Your task to perform on an android device: turn off notifications settings in the gmail app Image 0: 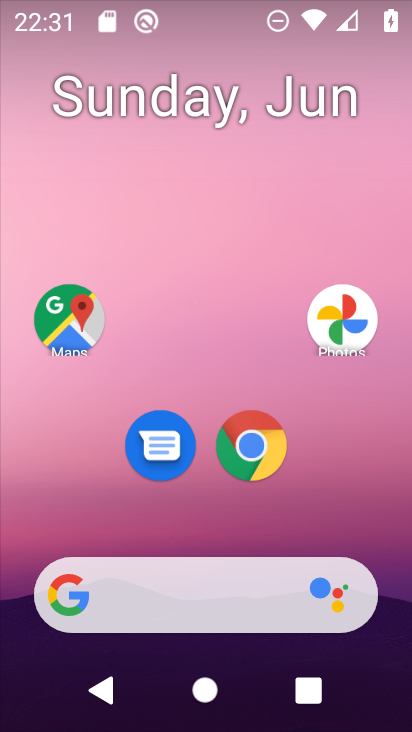
Step 0: press home button
Your task to perform on an android device: turn off notifications settings in the gmail app Image 1: 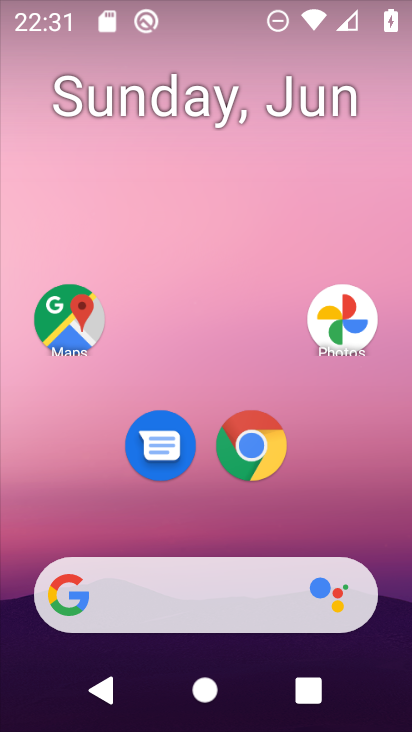
Step 1: drag from (326, 280) to (326, 43)
Your task to perform on an android device: turn off notifications settings in the gmail app Image 2: 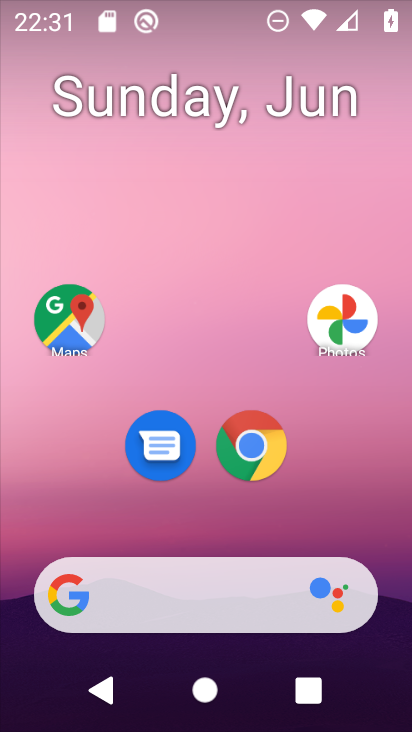
Step 2: drag from (298, 506) to (298, 17)
Your task to perform on an android device: turn off notifications settings in the gmail app Image 3: 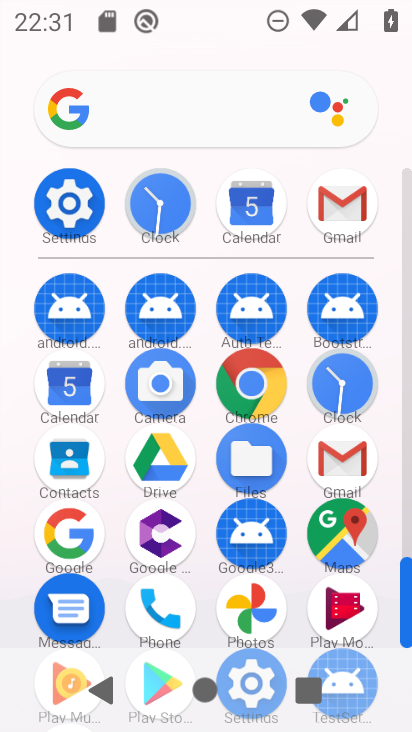
Step 3: click (347, 208)
Your task to perform on an android device: turn off notifications settings in the gmail app Image 4: 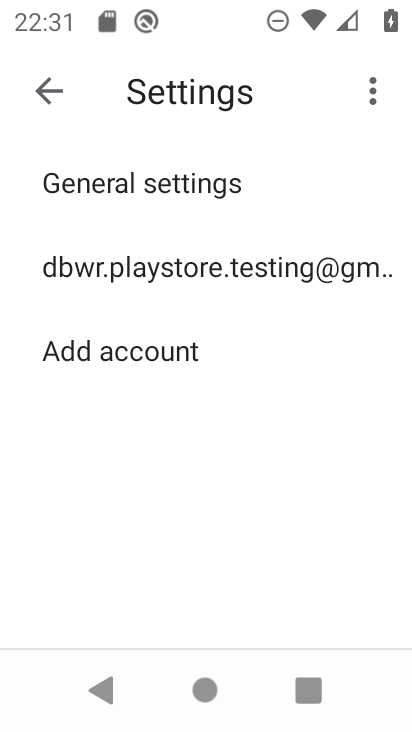
Step 4: click (145, 191)
Your task to perform on an android device: turn off notifications settings in the gmail app Image 5: 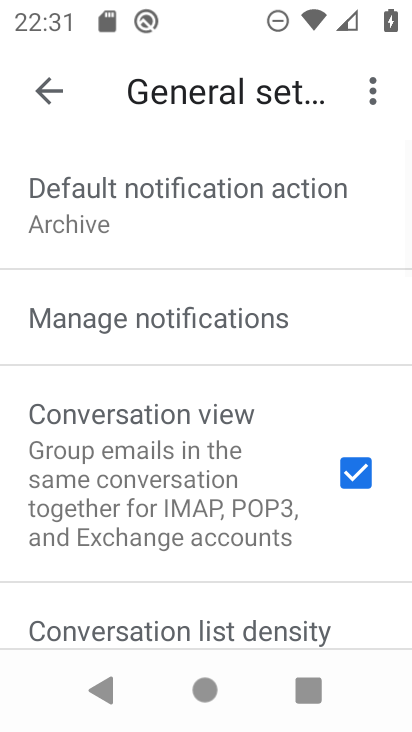
Step 5: click (148, 320)
Your task to perform on an android device: turn off notifications settings in the gmail app Image 6: 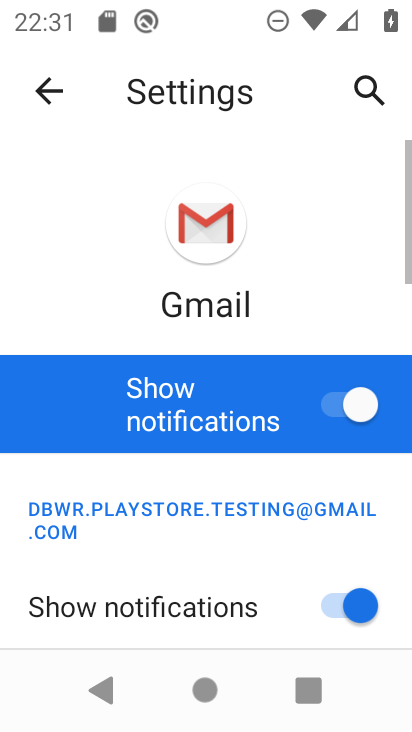
Step 6: click (353, 407)
Your task to perform on an android device: turn off notifications settings in the gmail app Image 7: 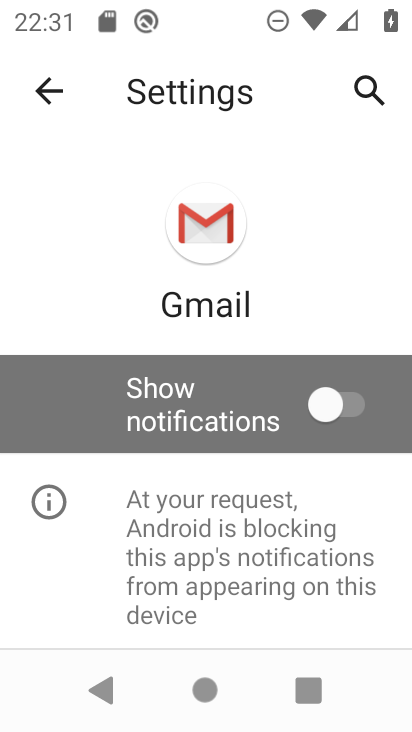
Step 7: task complete